Your task to perform on an android device: Go to Maps Image 0: 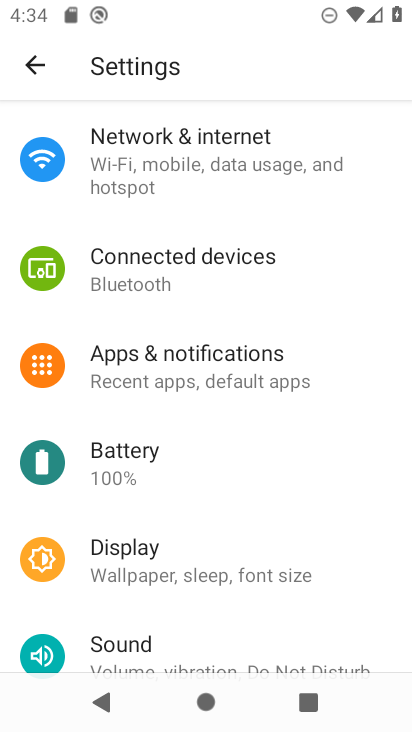
Step 0: press home button
Your task to perform on an android device: Go to Maps Image 1: 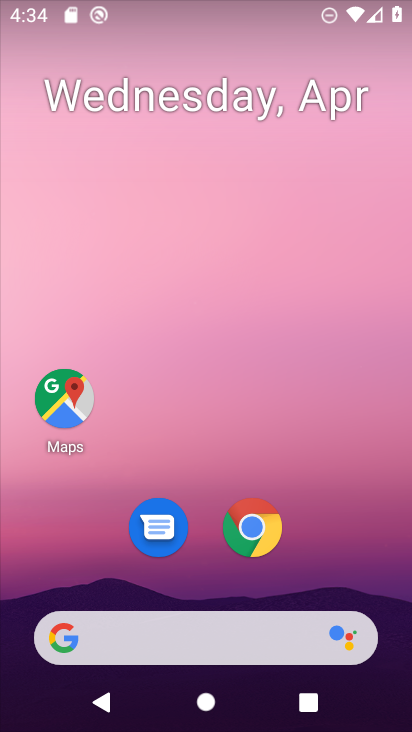
Step 1: click (60, 408)
Your task to perform on an android device: Go to Maps Image 2: 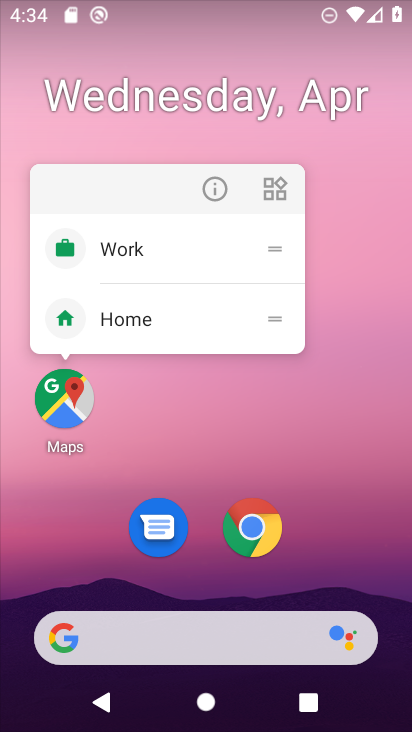
Step 2: click (60, 408)
Your task to perform on an android device: Go to Maps Image 3: 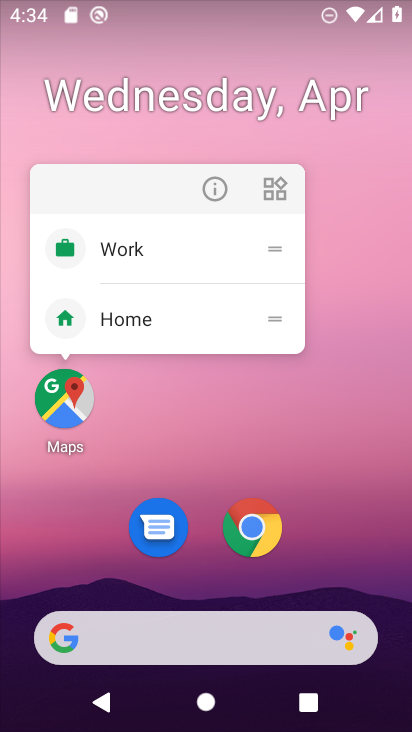
Step 3: click (60, 408)
Your task to perform on an android device: Go to Maps Image 4: 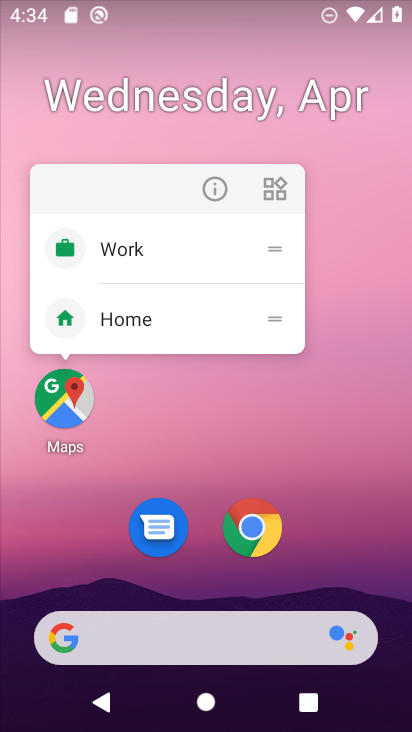
Step 4: click (60, 408)
Your task to perform on an android device: Go to Maps Image 5: 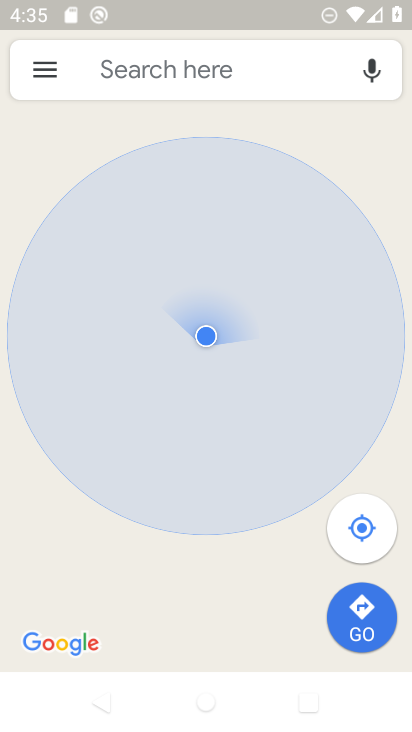
Step 5: task complete